Your task to perform on an android device: turn off javascript in the chrome app Image 0: 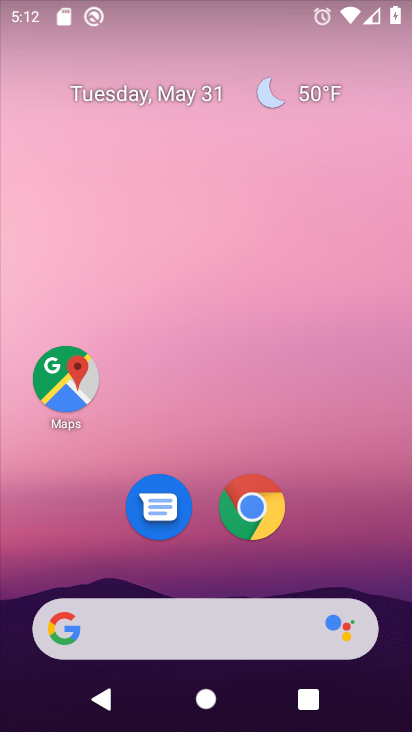
Step 0: click (245, 512)
Your task to perform on an android device: turn off javascript in the chrome app Image 1: 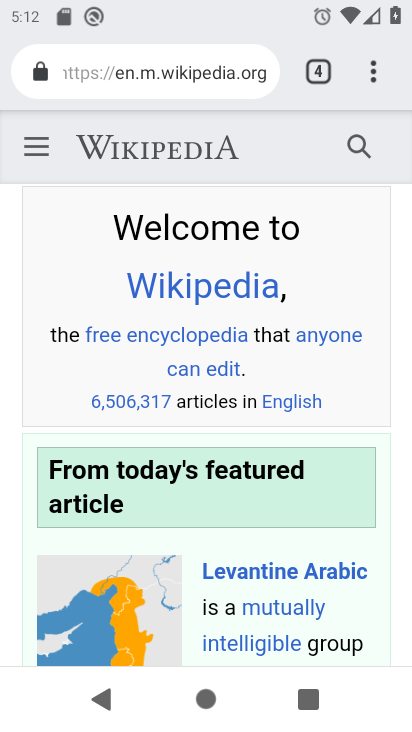
Step 1: click (370, 74)
Your task to perform on an android device: turn off javascript in the chrome app Image 2: 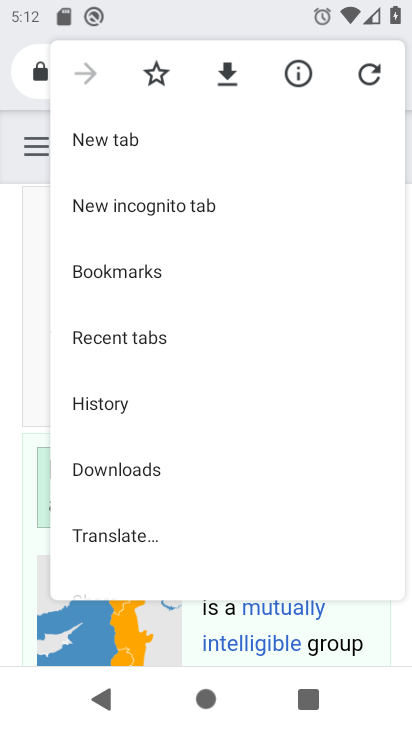
Step 2: drag from (271, 518) to (239, 124)
Your task to perform on an android device: turn off javascript in the chrome app Image 3: 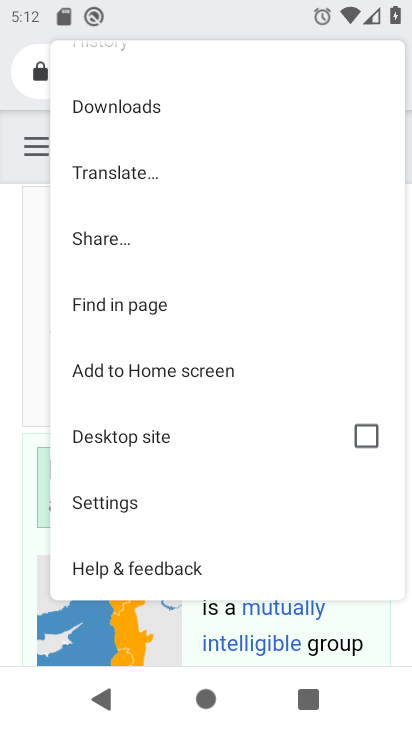
Step 3: click (193, 497)
Your task to perform on an android device: turn off javascript in the chrome app Image 4: 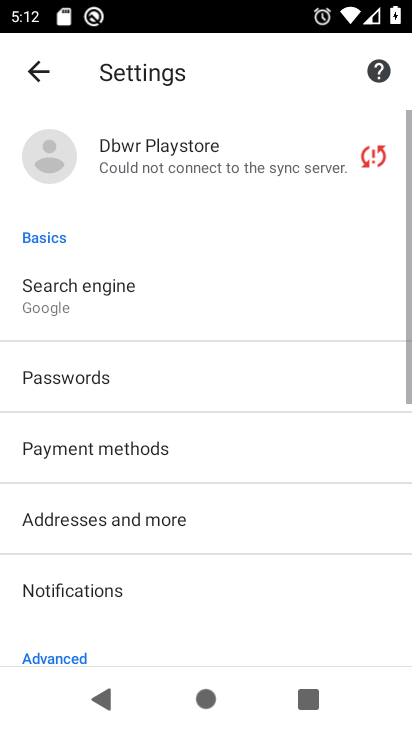
Step 4: drag from (224, 542) to (263, 143)
Your task to perform on an android device: turn off javascript in the chrome app Image 5: 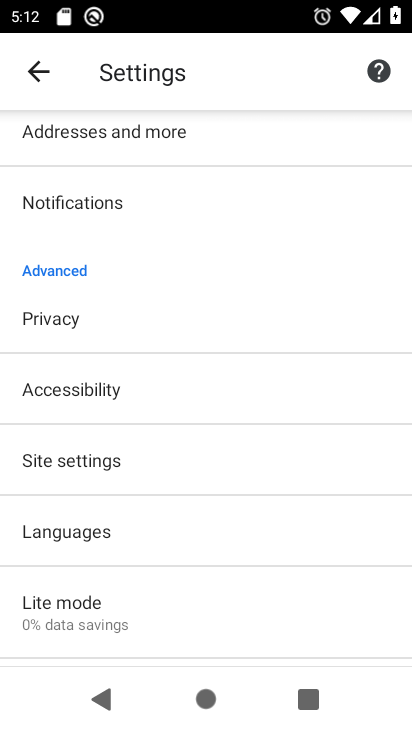
Step 5: click (146, 451)
Your task to perform on an android device: turn off javascript in the chrome app Image 6: 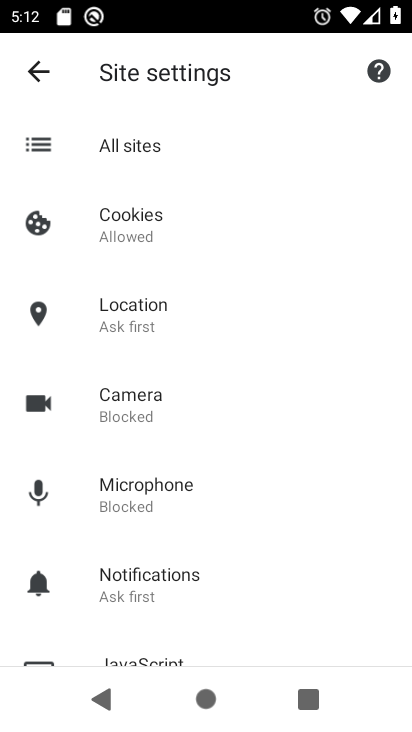
Step 6: drag from (247, 474) to (243, 315)
Your task to perform on an android device: turn off javascript in the chrome app Image 7: 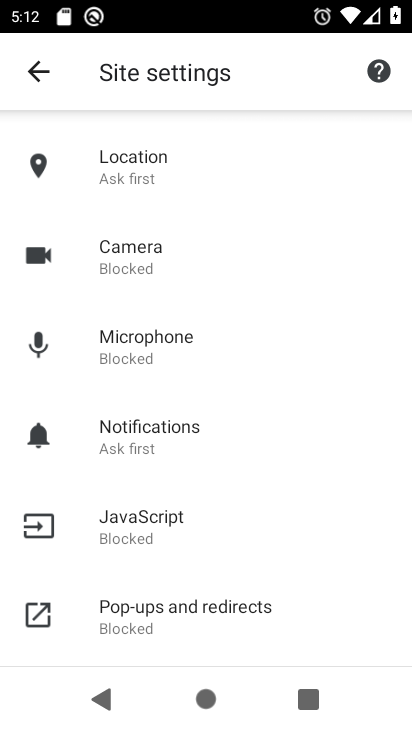
Step 7: click (185, 516)
Your task to perform on an android device: turn off javascript in the chrome app Image 8: 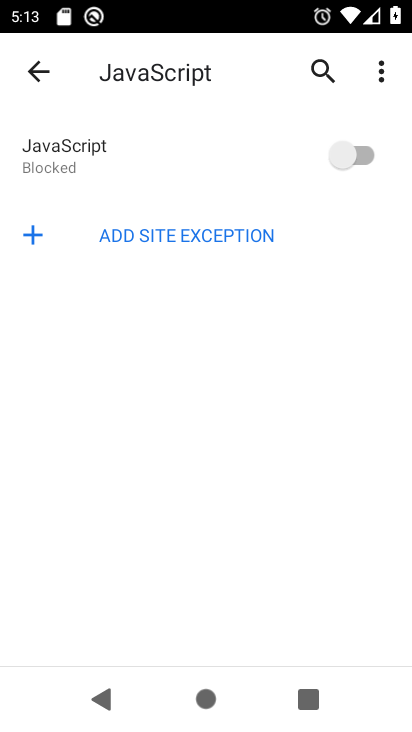
Step 8: task complete